Your task to perform on an android device: toggle data saver in the chrome app Image 0: 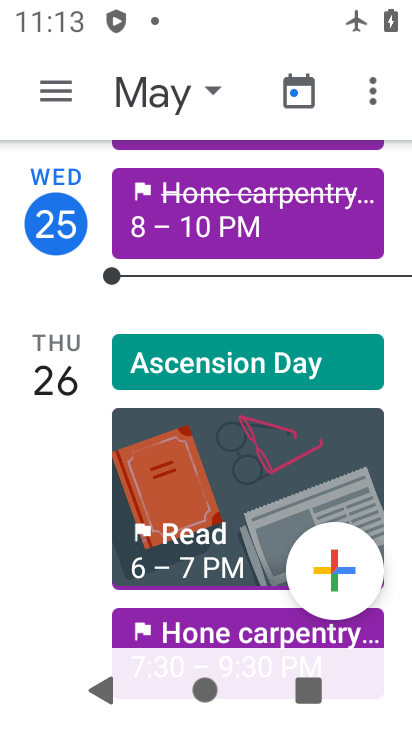
Step 0: press home button
Your task to perform on an android device: toggle data saver in the chrome app Image 1: 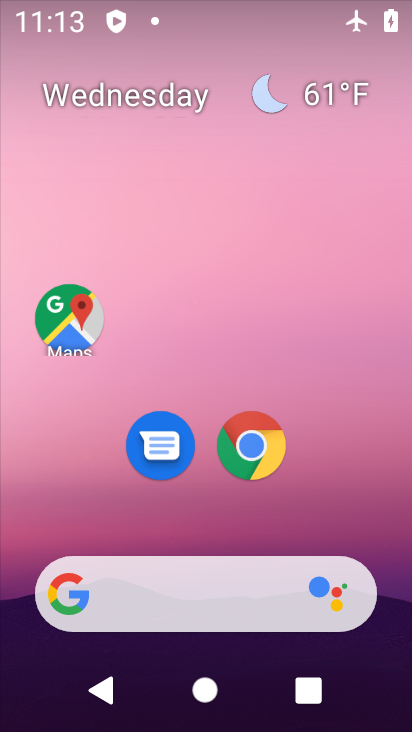
Step 1: drag from (371, 507) to (334, 215)
Your task to perform on an android device: toggle data saver in the chrome app Image 2: 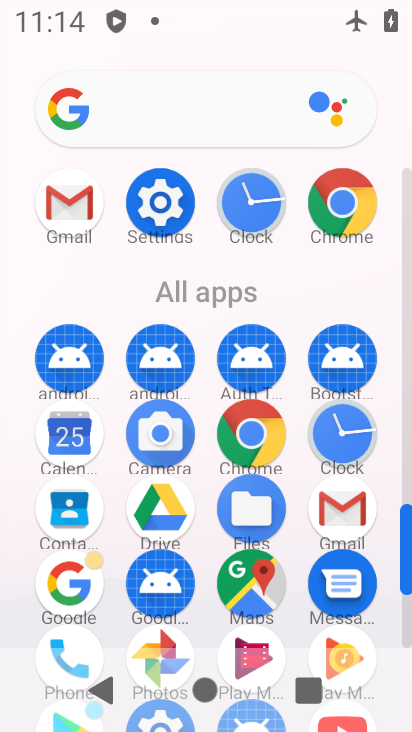
Step 2: drag from (309, 592) to (311, 335)
Your task to perform on an android device: toggle data saver in the chrome app Image 3: 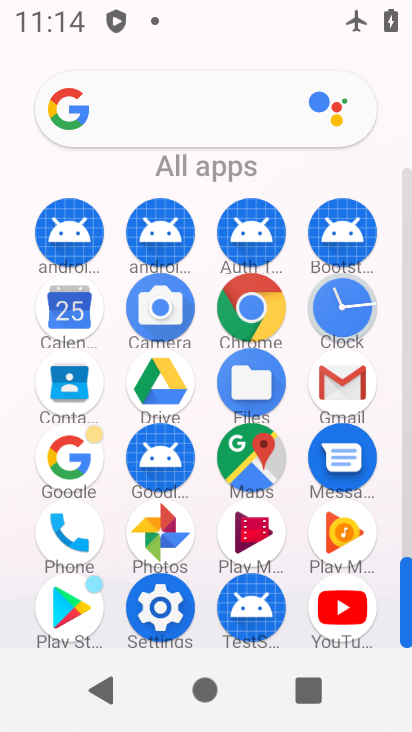
Step 3: click (237, 299)
Your task to perform on an android device: toggle data saver in the chrome app Image 4: 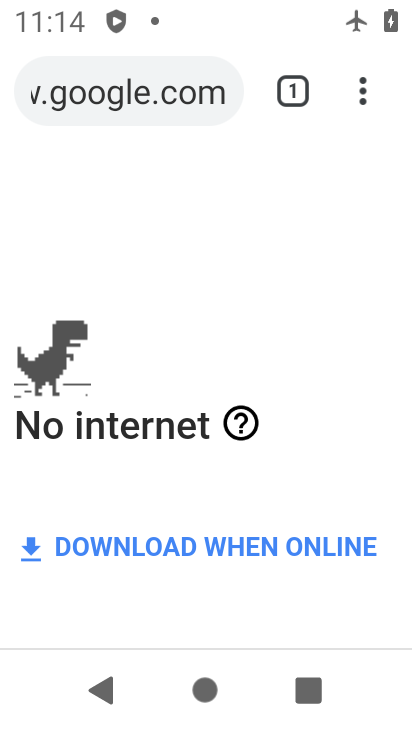
Step 4: drag from (373, 106) to (130, 489)
Your task to perform on an android device: toggle data saver in the chrome app Image 5: 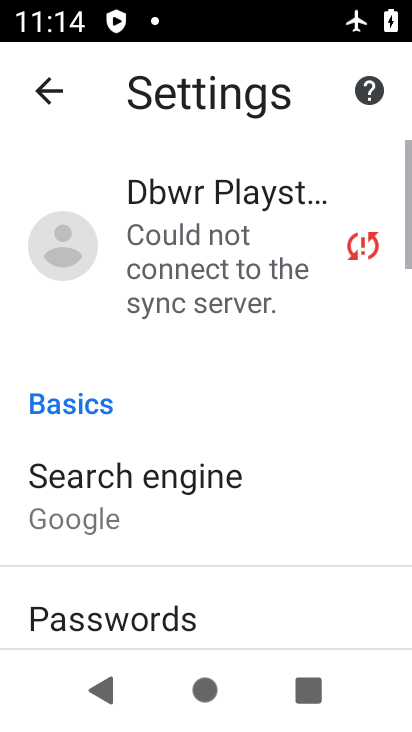
Step 5: drag from (191, 594) to (219, 307)
Your task to perform on an android device: toggle data saver in the chrome app Image 6: 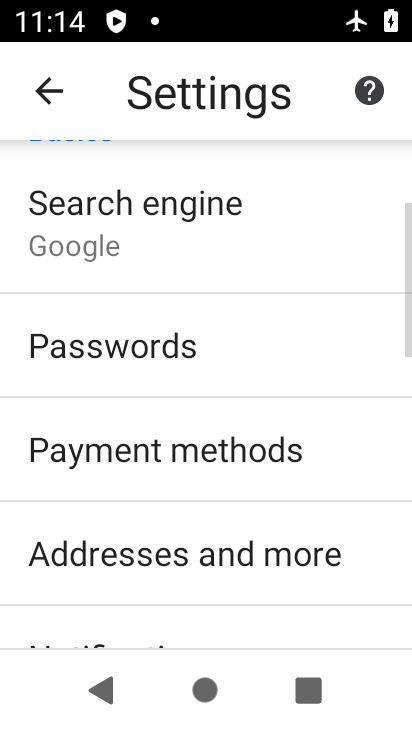
Step 6: drag from (229, 509) to (245, 262)
Your task to perform on an android device: toggle data saver in the chrome app Image 7: 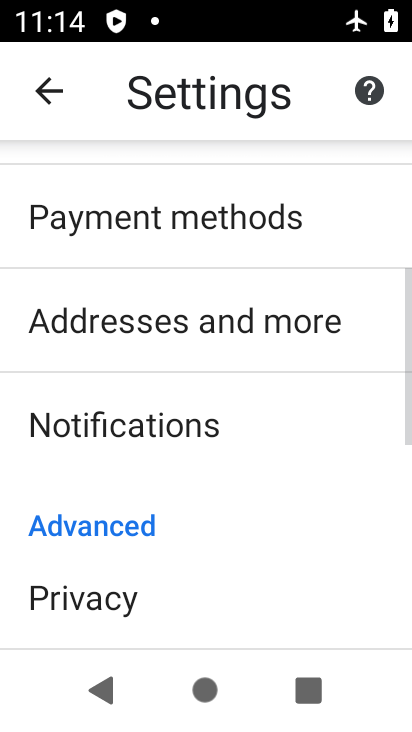
Step 7: drag from (218, 542) to (245, 308)
Your task to perform on an android device: toggle data saver in the chrome app Image 8: 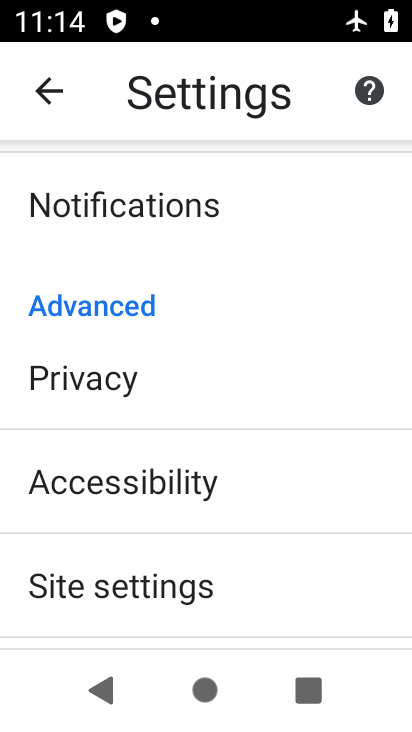
Step 8: drag from (262, 657) to (269, 356)
Your task to perform on an android device: toggle data saver in the chrome app Image 9: 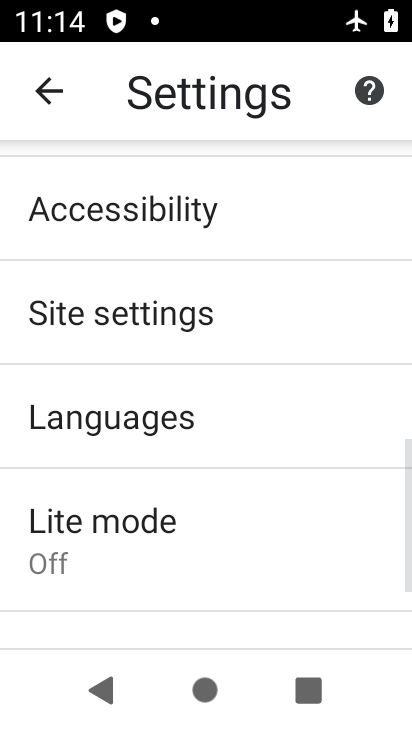
Step 9: drag from (275, 600) to (275, 298)
Your task to perform on an android device: toggle data saver in the chrome app Image 10: 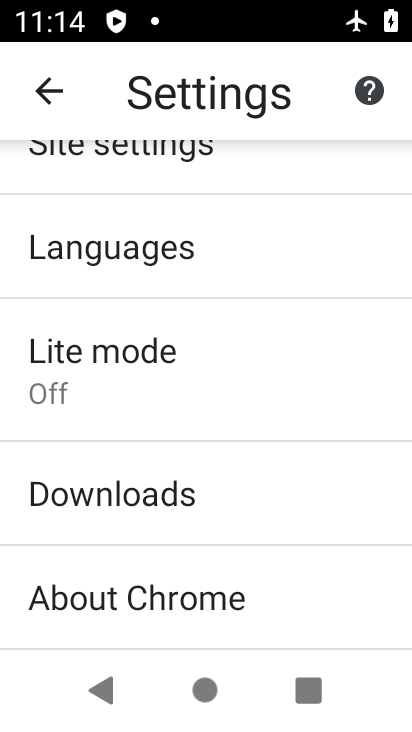
Step 10: drag from (251, 587) to (269, 245)
Your task to perform on an android device: toggle data saver in the chrome app Image 11: 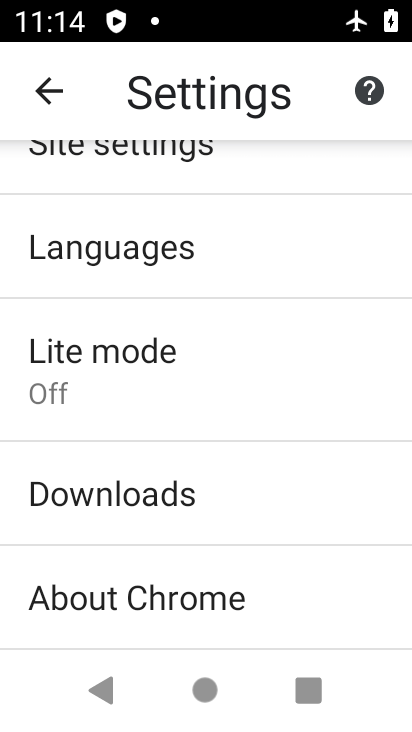
Step 11: click (154, 395)
Your task to perform on an android device: toggle data saver in the chrome app Image 12: 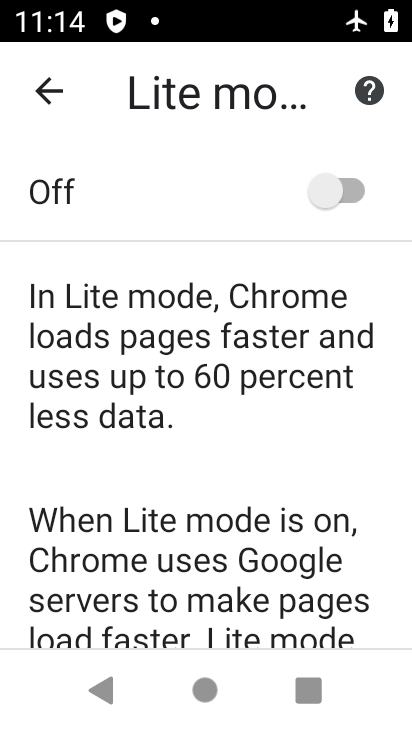
Step 12: click (349, 188)
Your task to perform on an android device: toggle data saver in the chrome app Image 13: 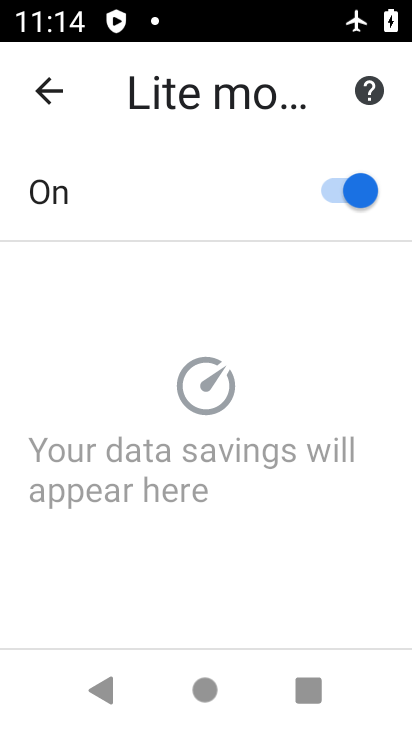
Step 13: task complete